Your task to perform on an android device: Open battery settings Image 0: 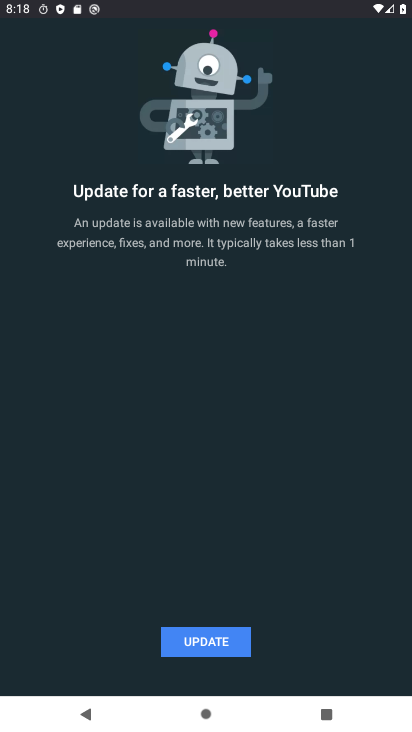
Step 0: press home button
Your task to perform on an android device: Open battery settings Image 1: 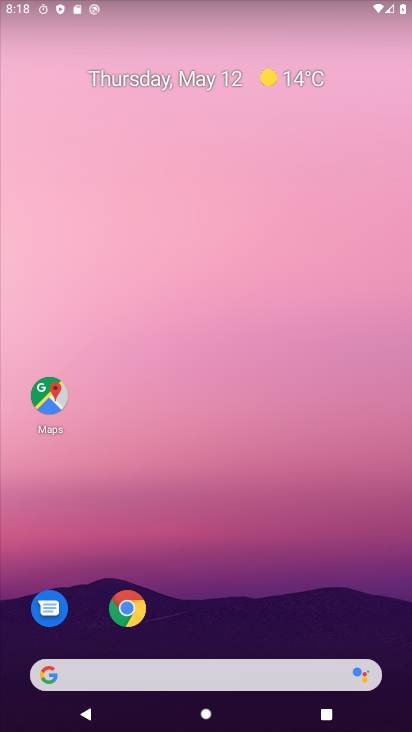
Step 1: drag from (260, 522) to (376, 106)
Your task to perform on an android device: Open battery settings Image 2: 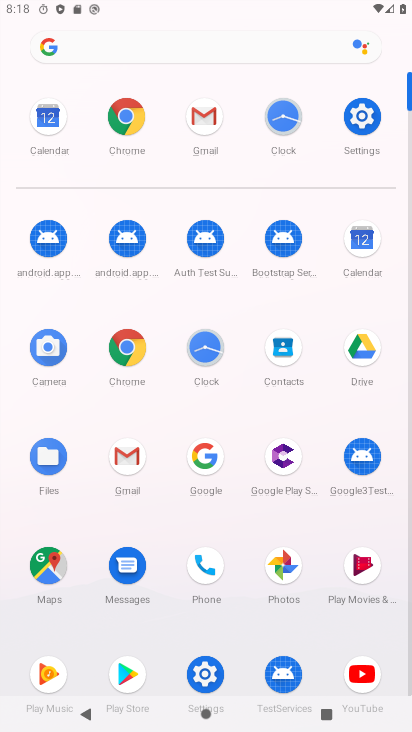
Step 2: click (357, 113)
Your task to perform on an android device: Open battery settings Image 3: 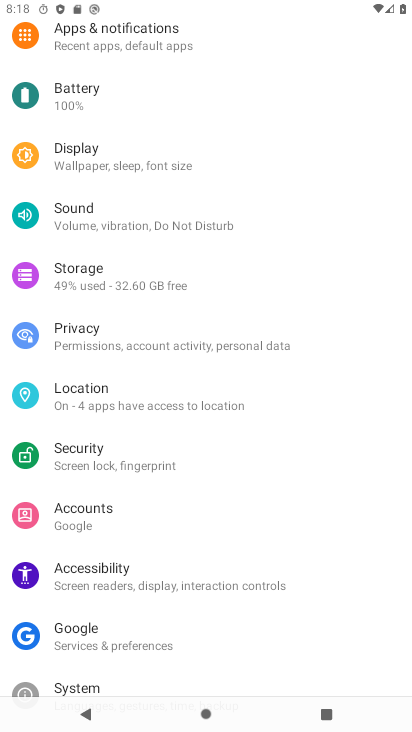
Step 3: click (135, 99)
Your task to perform on an android device: Open battery settings Image 4: 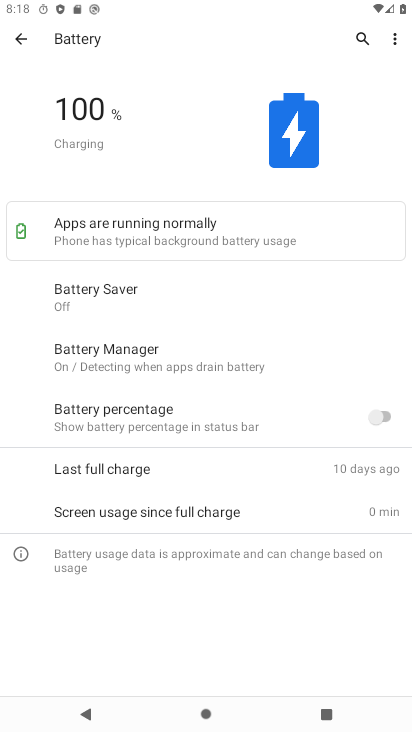
Step 4: task complete